Your task to perform on an android device: Add "razer blackwidow" to the cart on target Image 0: 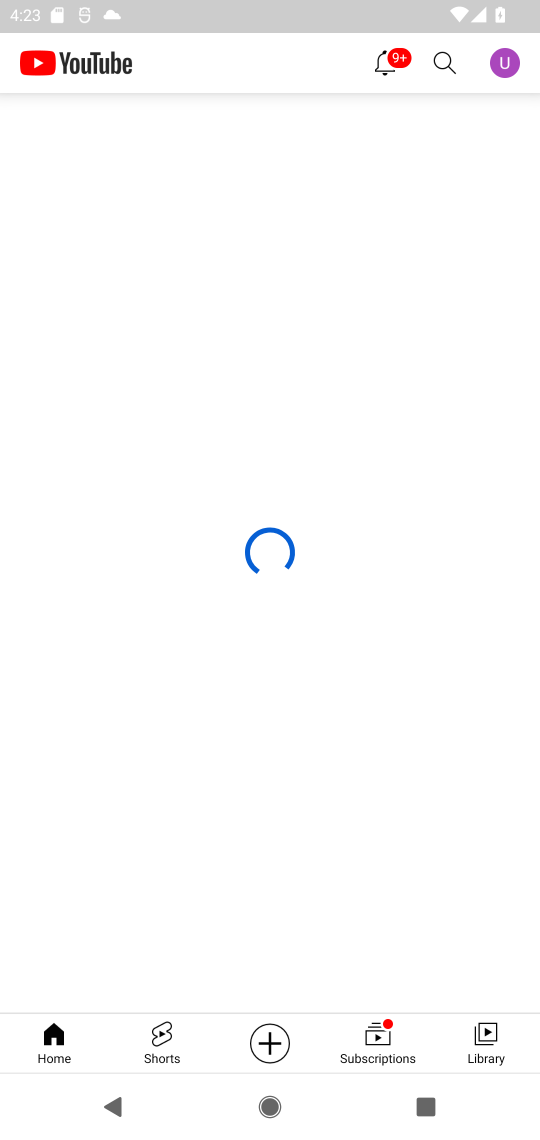
Step 0: press home button
Your task to perform on an android device: Add "razer blackwidow" to the cart on target Image 1: 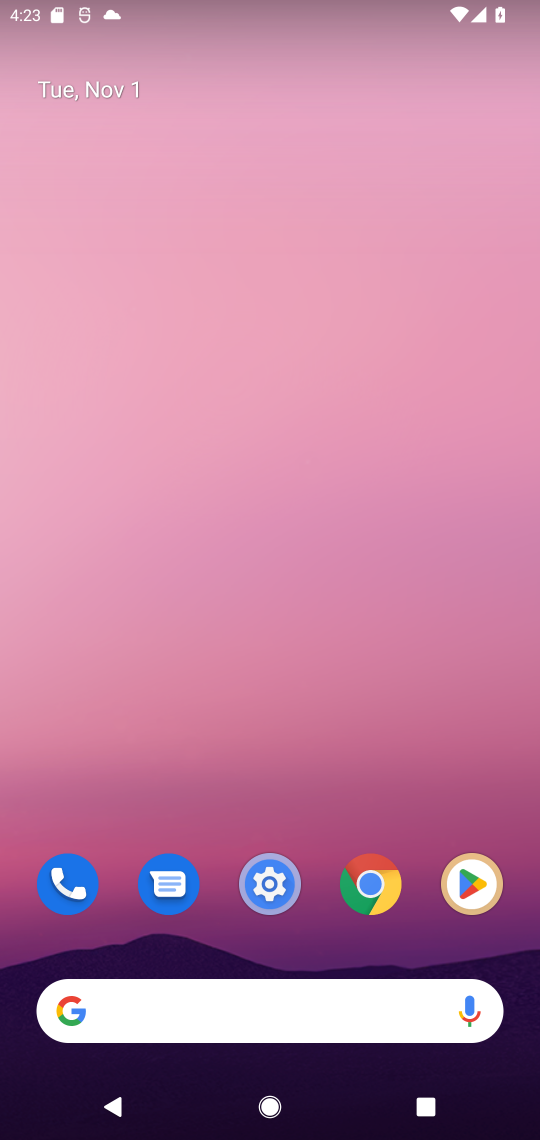
Step 1: click (93, 1008)
Your task to perform on an android device: Add "razer blackwidow" to the cart on target Image 2: 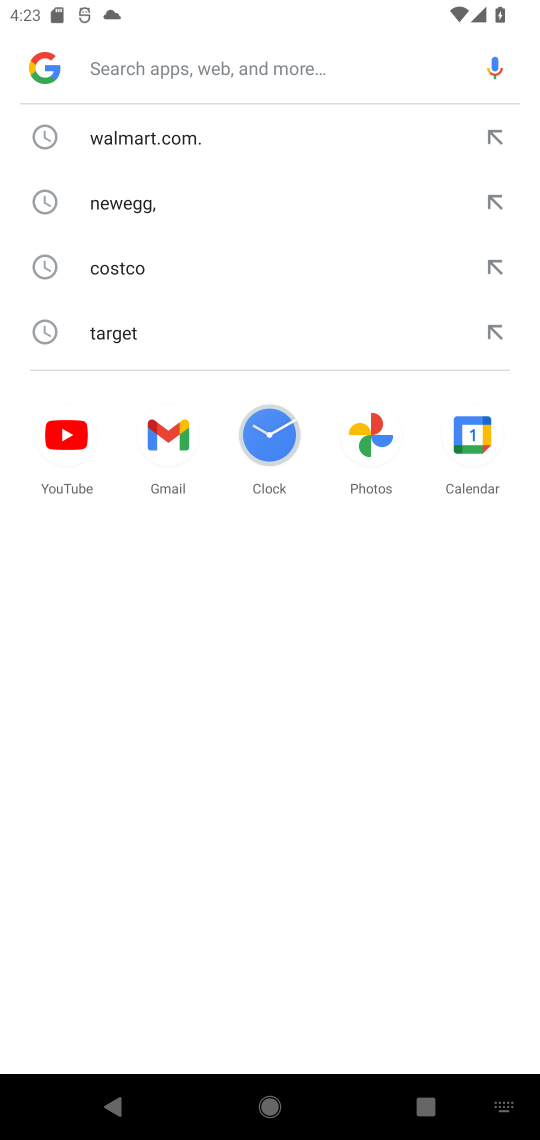
Step 2: press enter
Your task to perform on an android device: Add "razer blackwidow" to the cart on target Image 3: 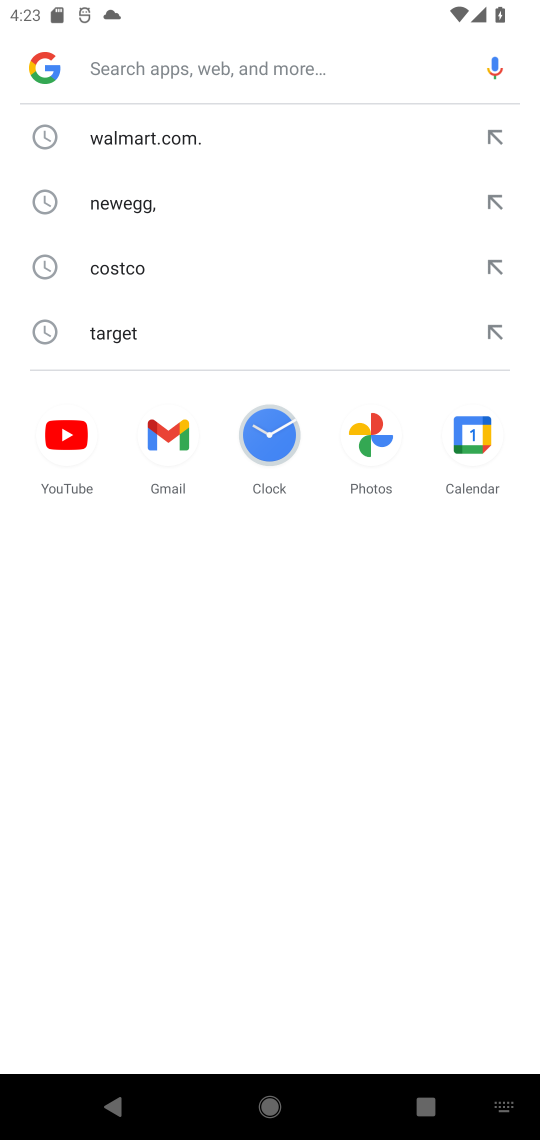
Step 3: type "target"
Your task to perform on an android device: Add "razer blackwidow" to the cart on target Image 4: 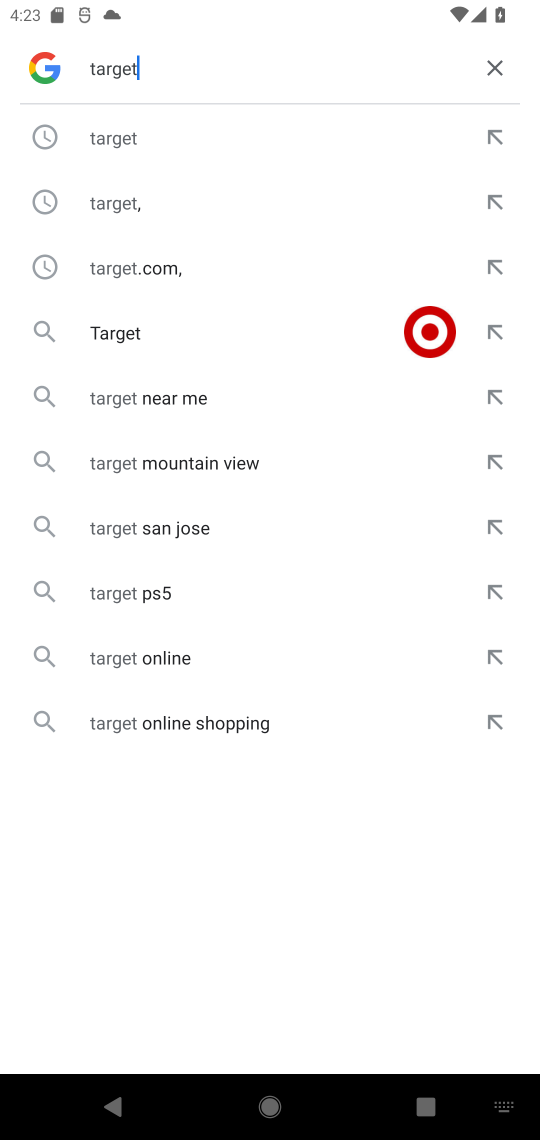
Step 4: press enter
Your task to perform on an android device: Add "razer blackwidow" to the cart on target Image 5: 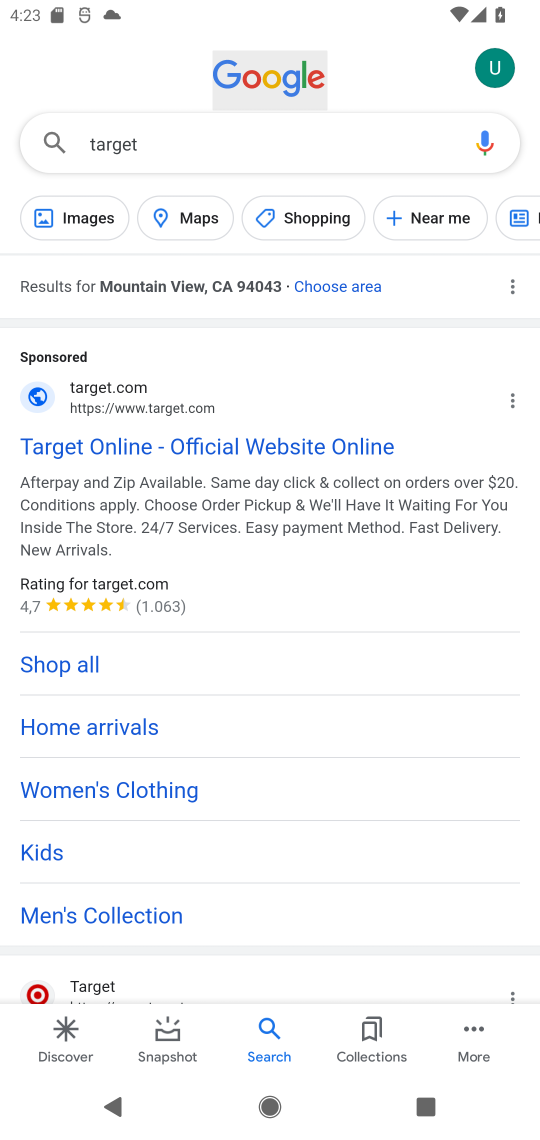
Step 5: click (181, 442)
Your task to perform on an android device: Add "razer blackwidow" to the cart on target Image 6: 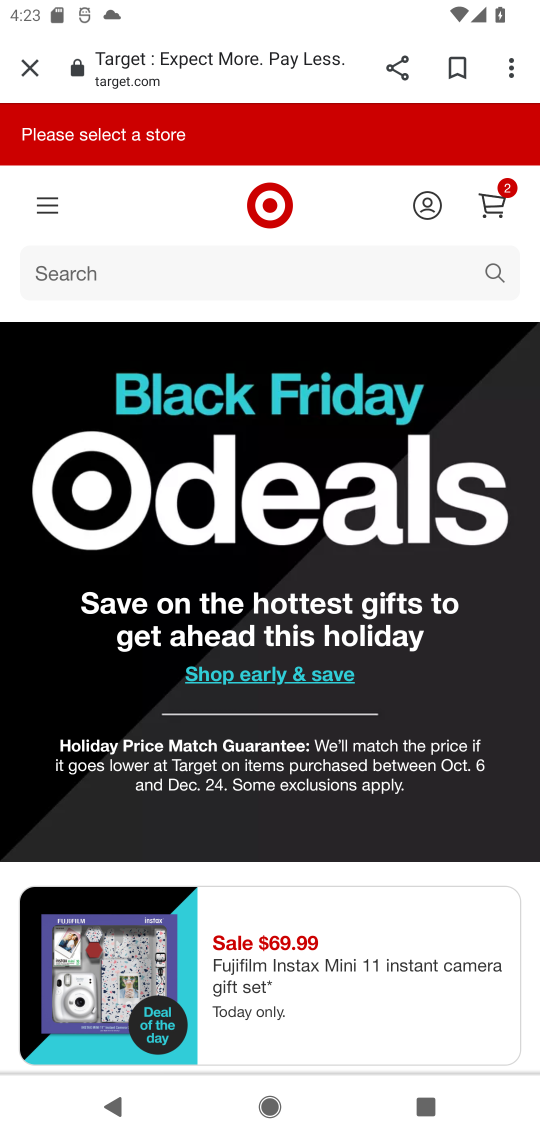
Step 6: click (93, 270)
Your task to perform on an android device: Add "razer blackwidow" to the cart on target Image 7: 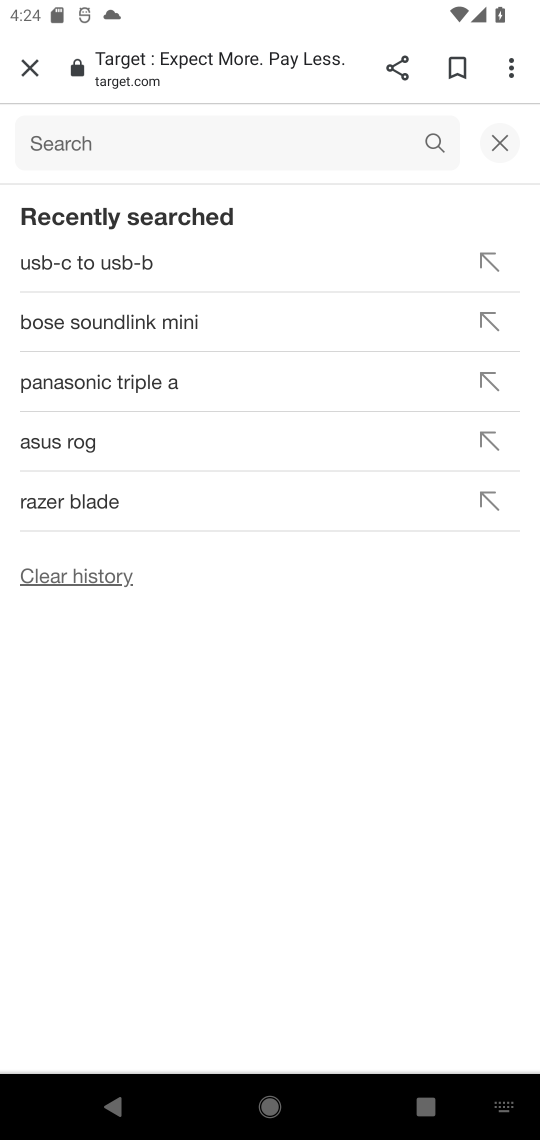
Step 7: type "razer blackwidow"
Your task to perform on an android device: Add "razer blackwidow" to the cart on target Image 8: 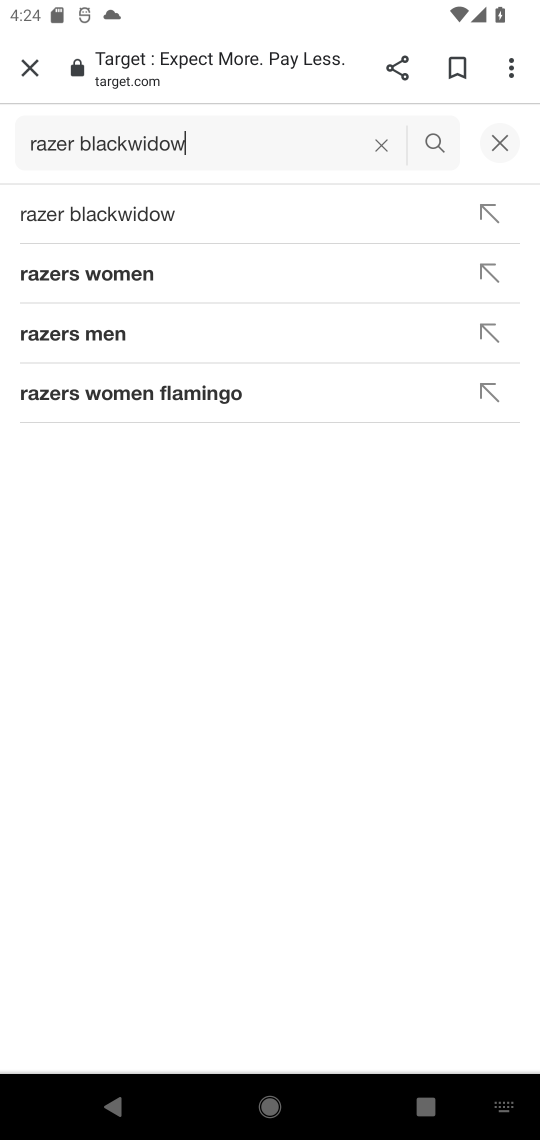
Step 8: click (435, 135)
Your task to perform on an android device: Add "razer blackwidow" to the cart on target Image 9: 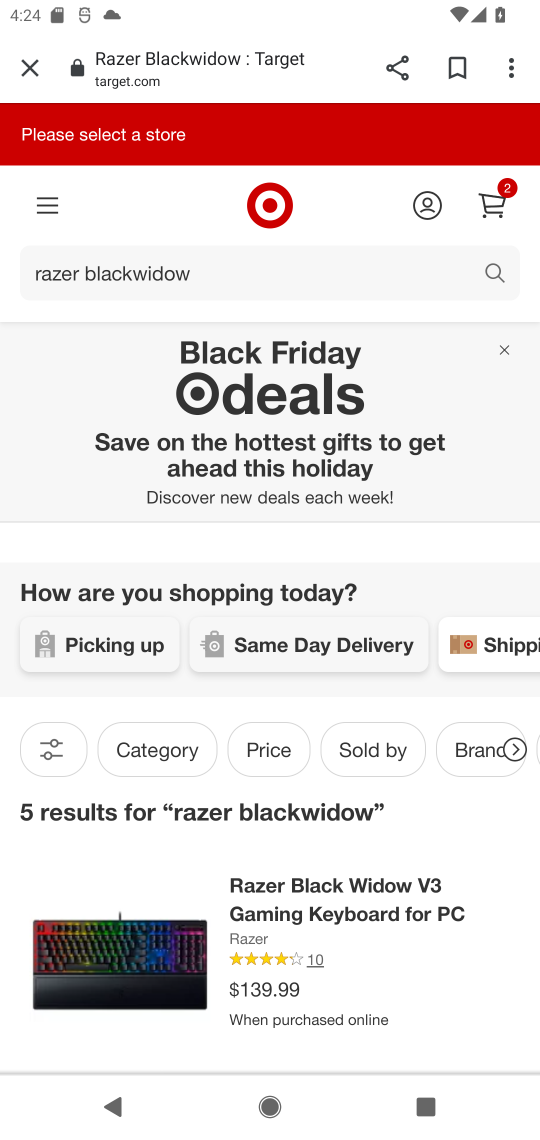
Step 9: drag from (336, 955) to (352, 583)
Your task to perform on an android device: Add "razer blackwidow" to the cart on target Image 10: 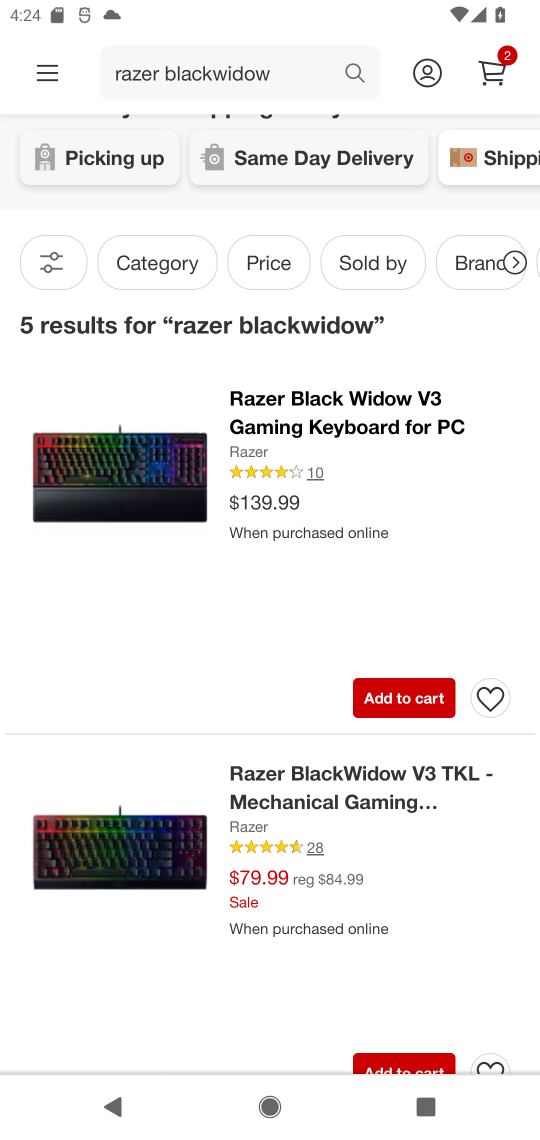
Step 10: click (395, 695)
Your task to perform on an android device: Add "razer blackwidow" to the cart on target Image 11: 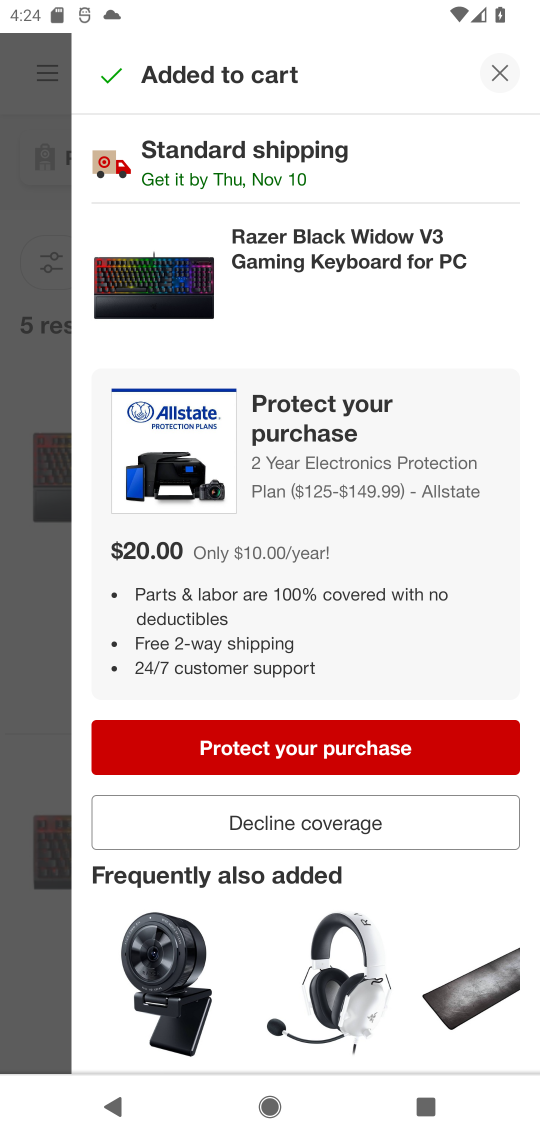
Step 11: task complete